Your task to perform on an android device: toggle airplane mode Image 0: 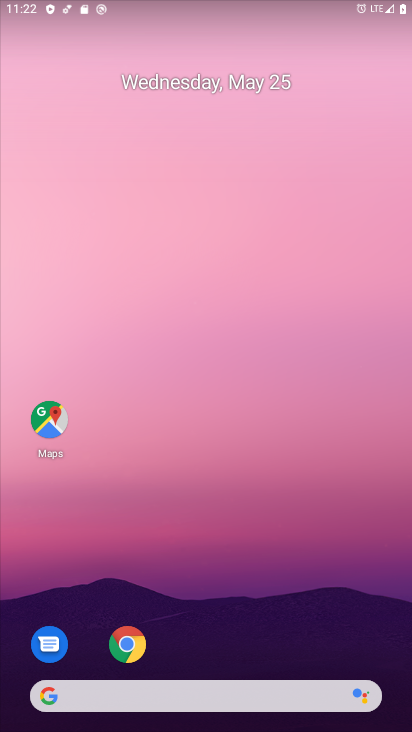
Step 0: drag from (245, 610) to (161, 128)
Your task to perform on an android device: toggle airplane mode Image 1: 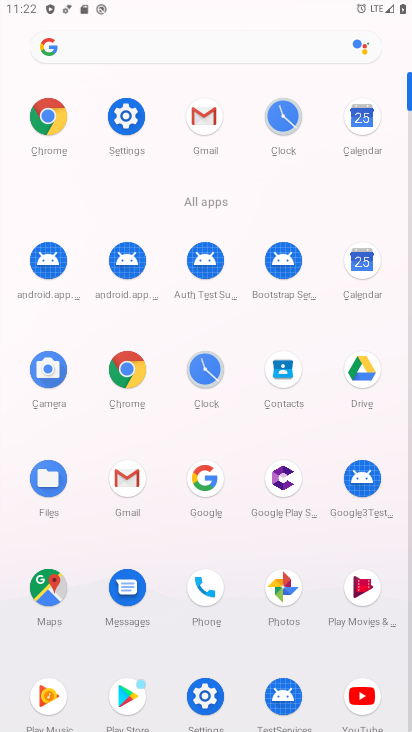
Step 1: click (126, 115)
Your task to perform on an android device: toggle airplane mode Image 2: 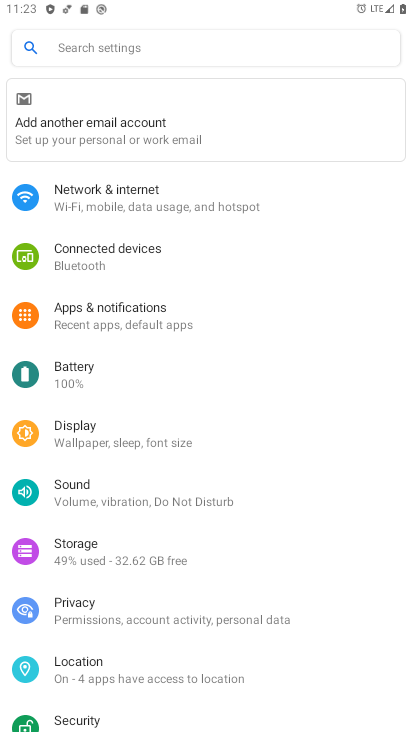
Step 2: click (136, 203)
Your task to perform on an android device: toggle airplane mode Image 3: 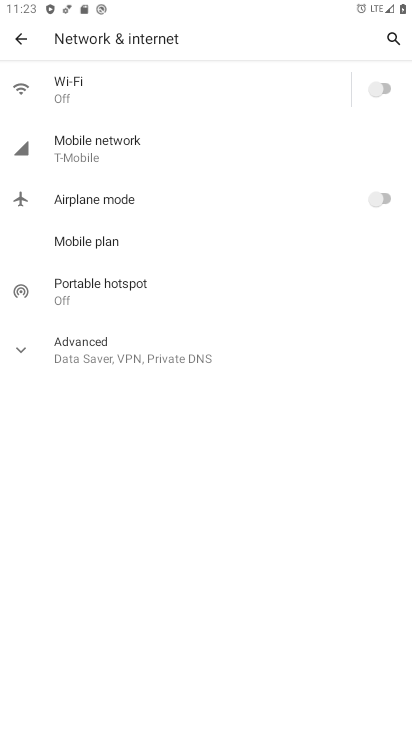
Step 3: click (375, 201)
Your task to perform on an android device: toggle airplane mode Image 4: 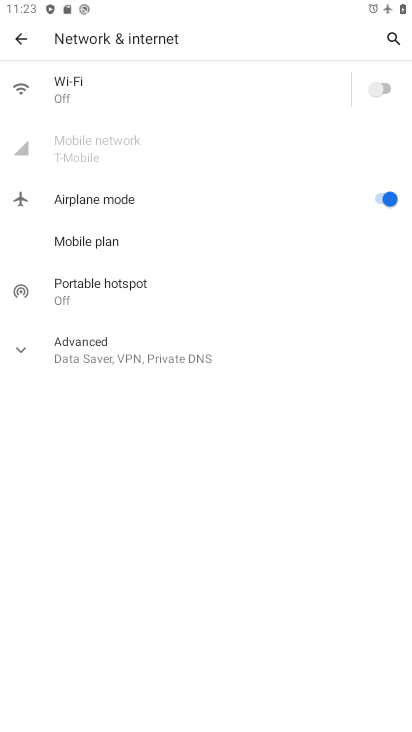
Step 4: task complete